Your task to perform on an android device: change text size in settings app Image 0: 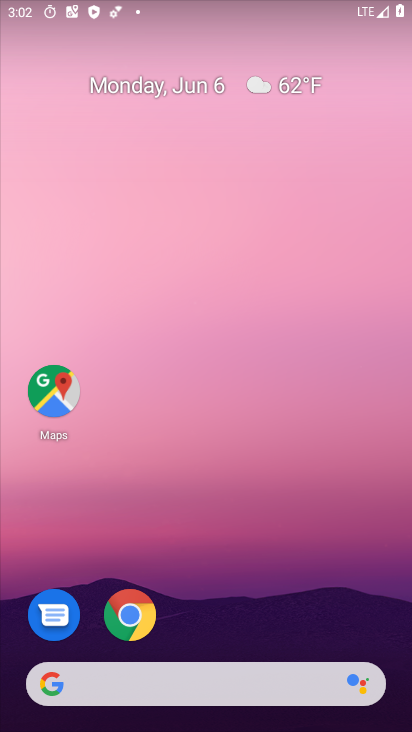
Step 0: drag from (282, 687) to (275, 22)
Your task to perform on an android device: change text size in settings app Image 1: 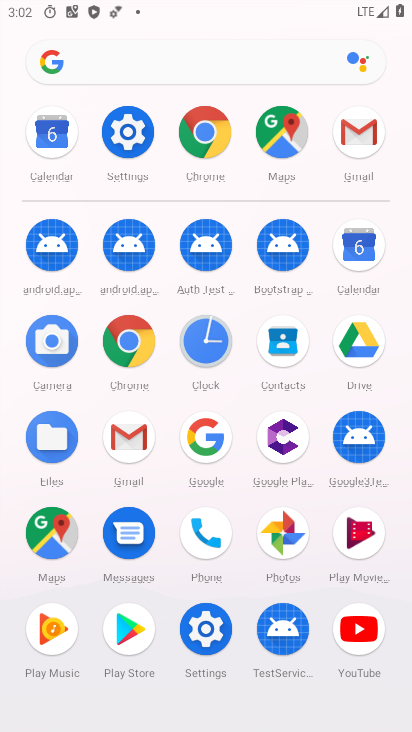
Step 1: click (133, 136)
Your task to perform on an android device: change text size in settings app Image 2: 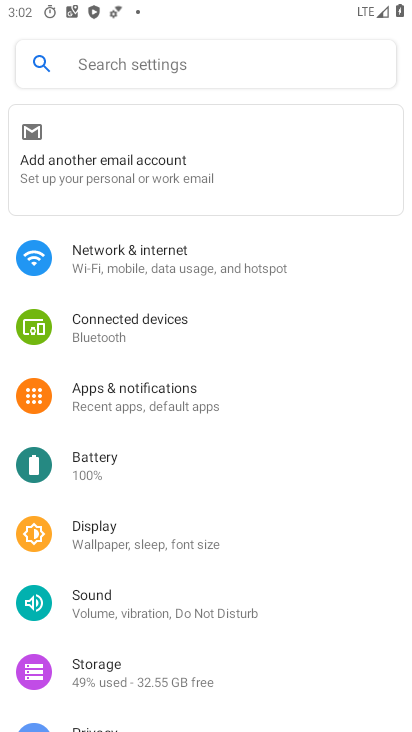
Step 2: drag from (133, 690) to (177, 183)
Your task to perform on an android device: change text size in settings app Image 3: 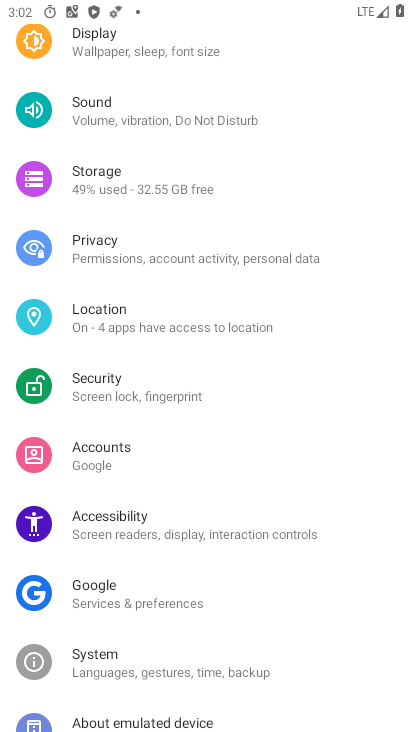
Step 3: drag from (182, 587) to (190, 379)
Your task to perform on an android device: change text size in settings app Image 4: 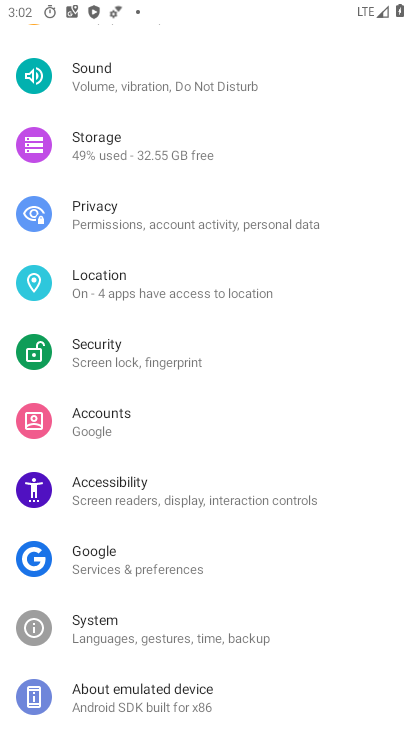
Step 4: click (160, 498)
Your task to perform on an android device: change text size in settings app Image 5: 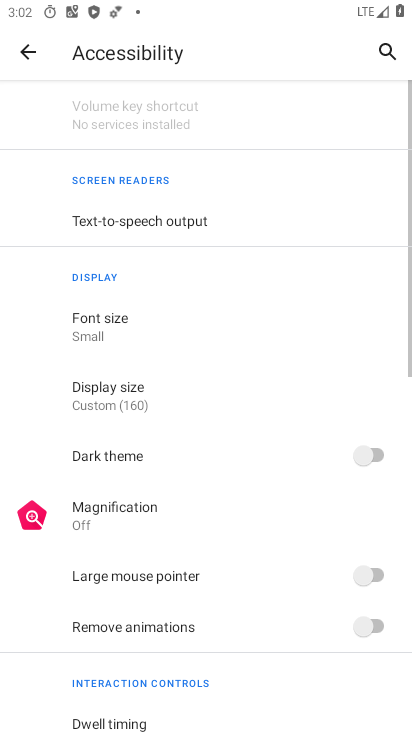
Step 5: click (80, 295)
Your task to perform on an android device: change text size in settings app Image 6: 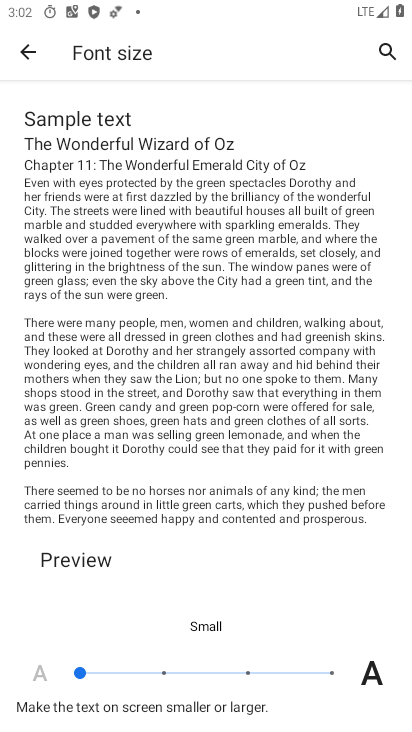
Step 6: click (132, 673)
Your task to perform on an android device: change text size in settings app Image 7: 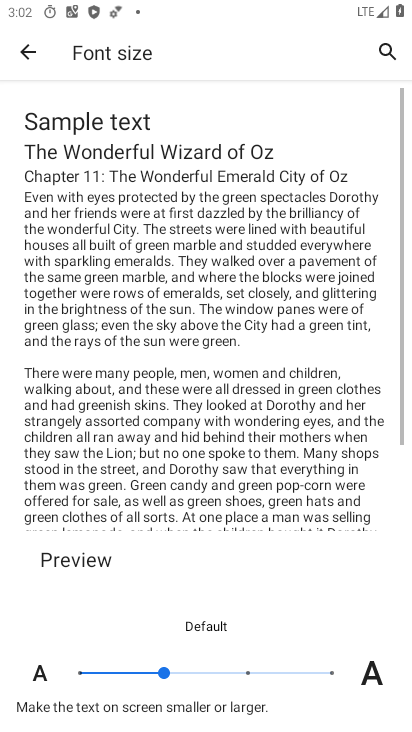
Step 7: task complete